Your task to perform on an android device: add a contact in the contacts app Image 0: 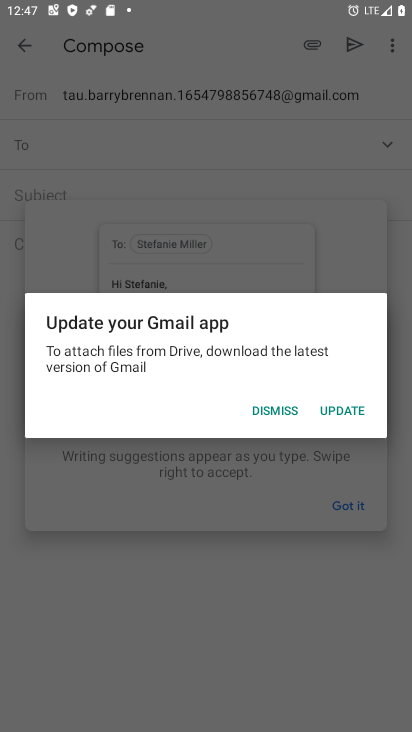
Step 0: press home button
Your task to perform on an android device: add a contact in the contacts app Image 1: 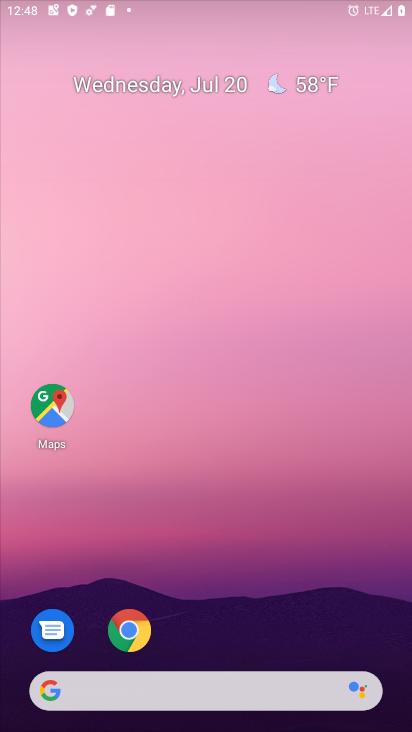
Step 1: drag from (176, 687) to (293, 120)
Your task to perform on an android device: add a contact in the contacts app Image 2: 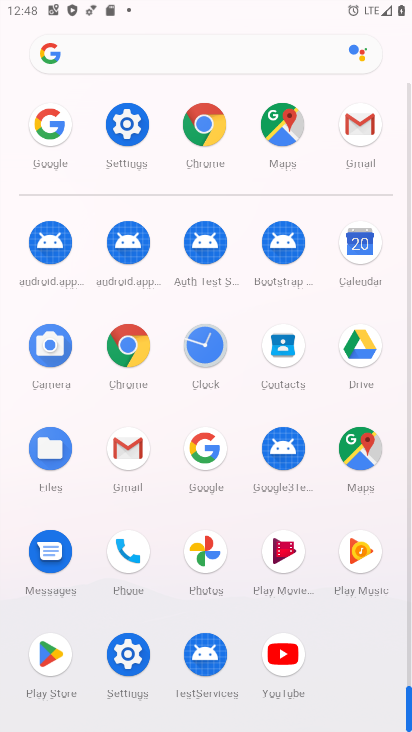
Step 2: click (267, 354)
Your task to perform on an android device: add a contact in the contacts app Image 3: 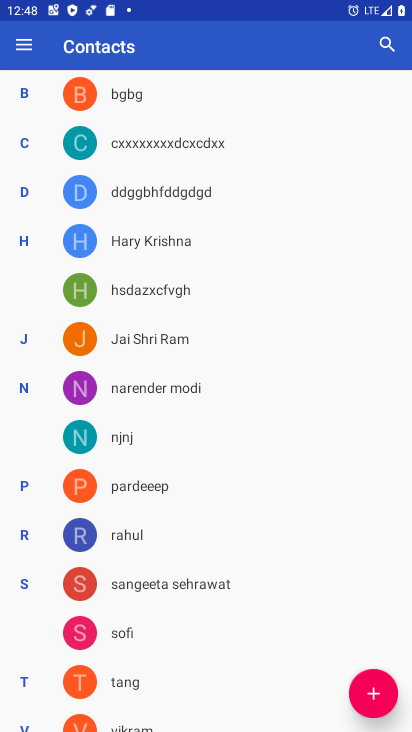
Step 3: click (372, 696)
Your task to perform on an android device: add a contact in the contacts app Image 4: 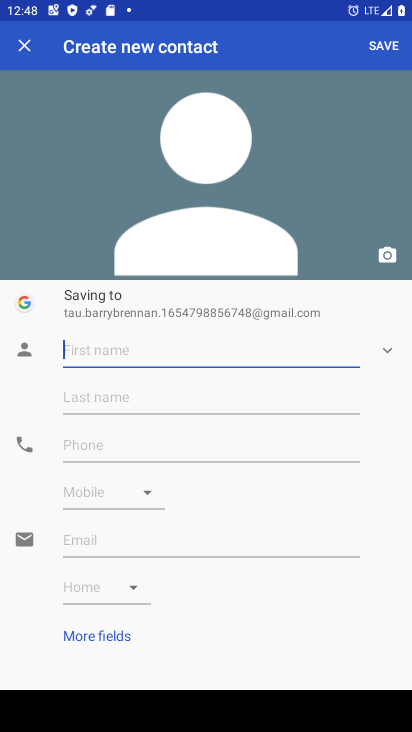
Step 4: type "dfgh"
Your task to perform on an android device: add a contact in the contacts app Image 5: 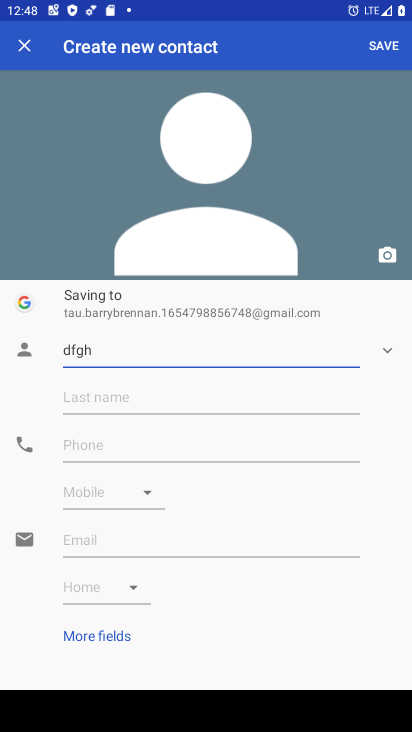
Step 5: click (200, 450)
Your task to perform on an android device: add a contact in the contacts app Image 6: 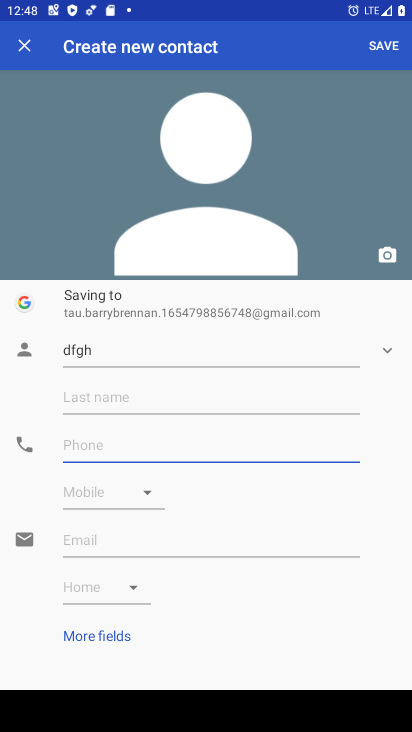
Step 6: type "4567887654"
Your task to perform on an android device: add a contact in the contacts app Image 7: 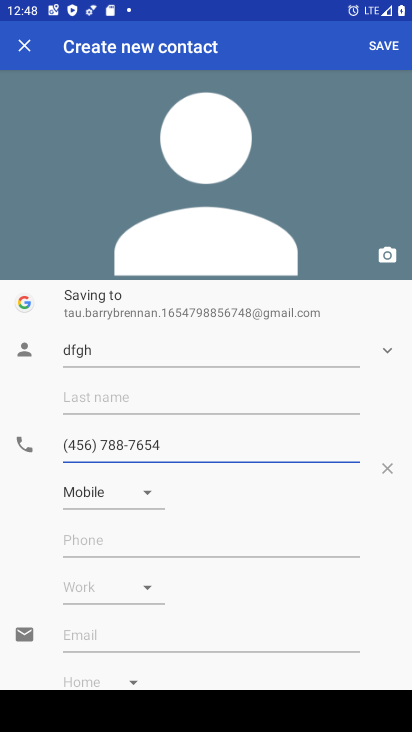
Step 7: click (386, 37)
Your task to perform on an android device: add a contact in the contacts app Image 8: 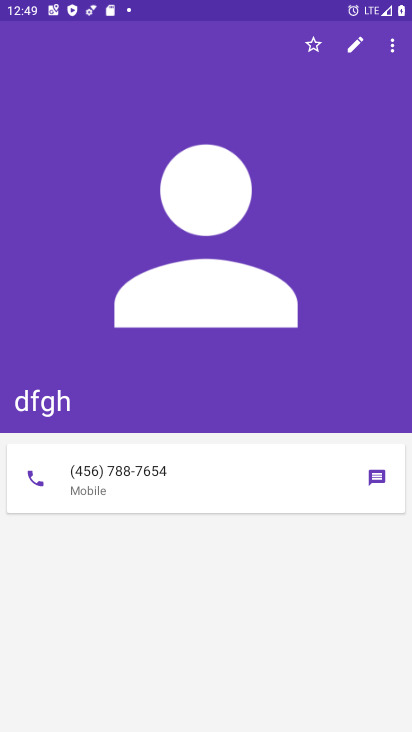
Step 8: task complete